Your task to perform on an android device: toggle translation in the chrome app Image 0: 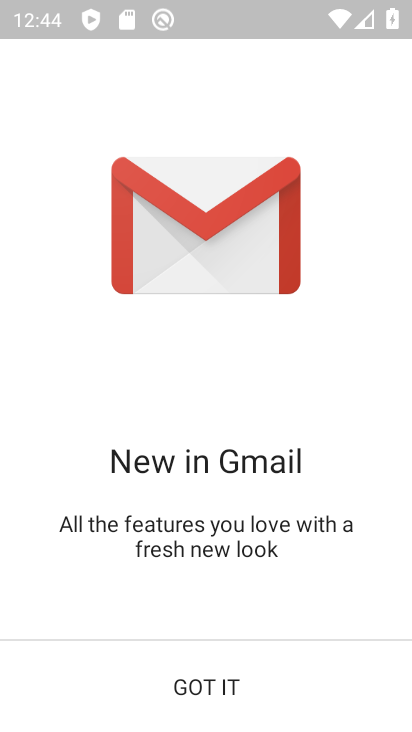
Step 0: click (204, 679)
Your task to perform on an android device: toggle translation in the chrome app Image 1: 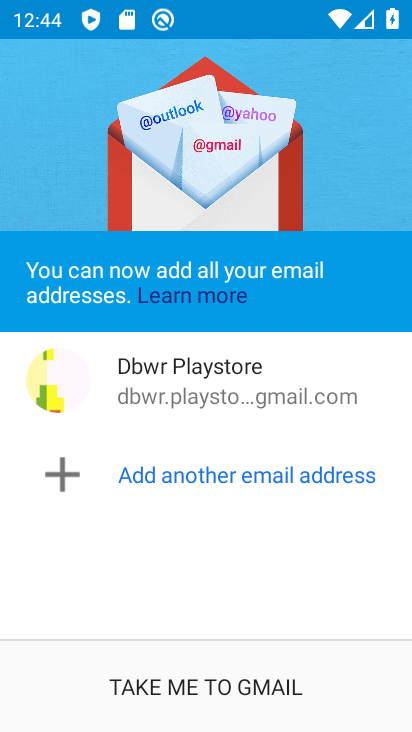
Step 1: click (205, 694)
Your task to perform on an android device: toggle translation in the chrome app Image 2: 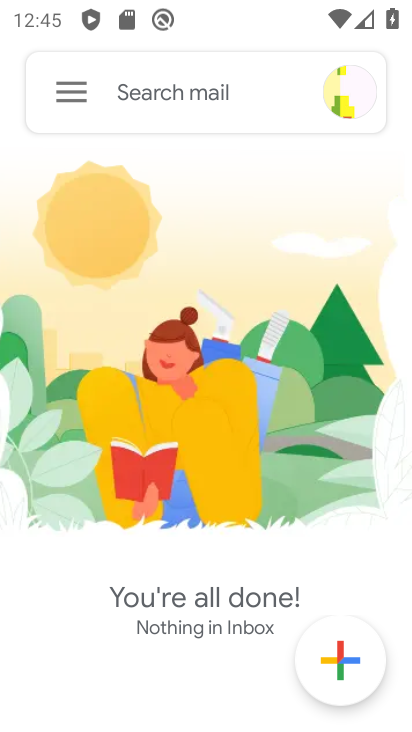
Step 2: click (74, 93)
Your task to perform on an android device: toggle translation in the chrome app Image 3: 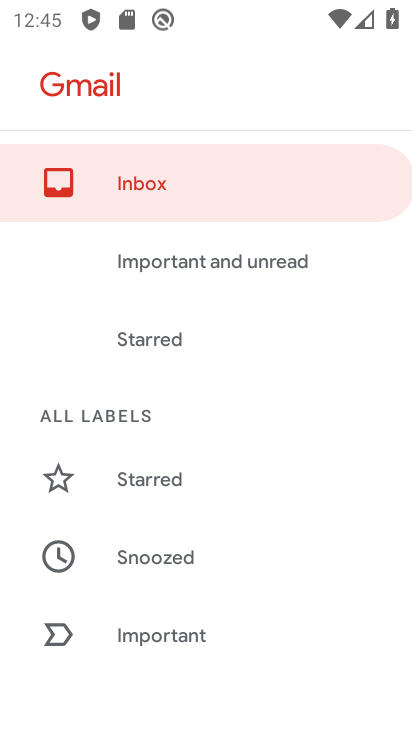
Step 3: drag from (263, 598) to (229, 336)
Your task to perform on an android device: toggle translation in the chrome app Image 4: 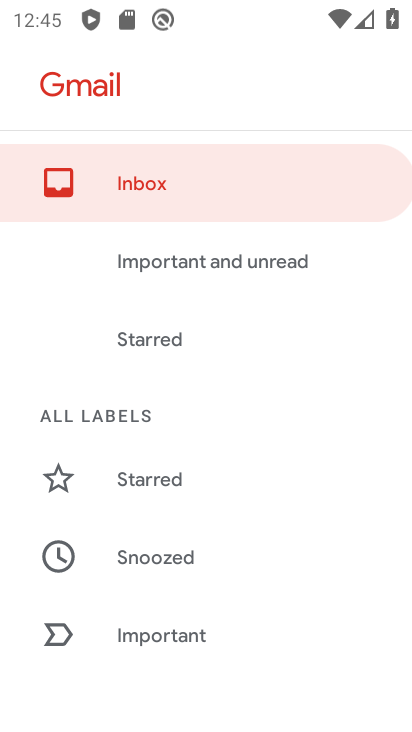
Step 4: drag from (235, 609) to (233, 271)
Your task to perform on an android device: toggle translation in the chrome app Image 5: 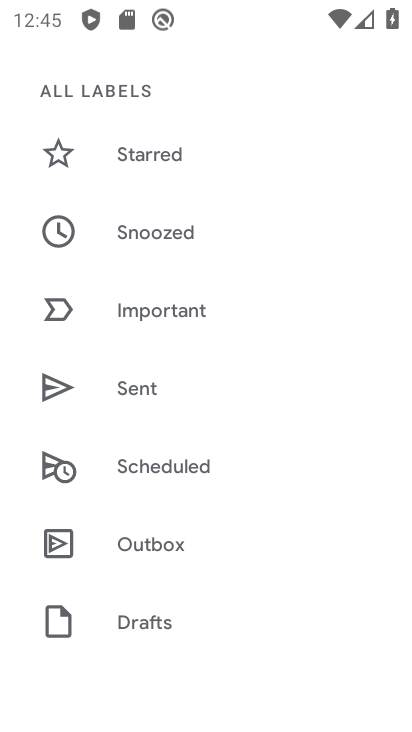
Step 5: drag from (211, 622) to (221, 231)
Your task to perform on an android device: toggle translation in the chrome app Image 6: 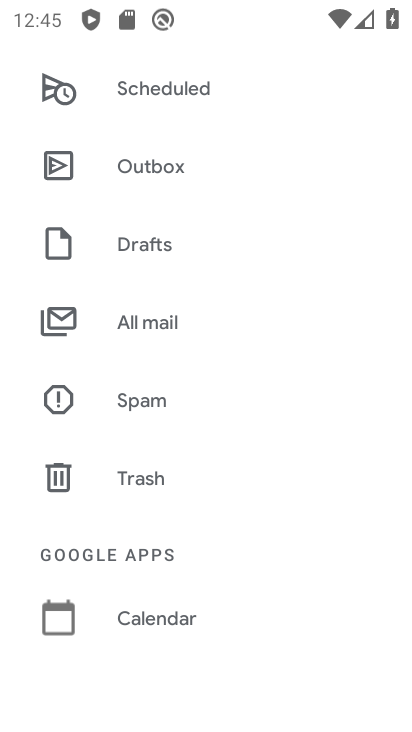
Step 6: drag from (216, 490) to (219, 270)
Your task to perform on an android device: toggle translation in the chrome app Image 7: 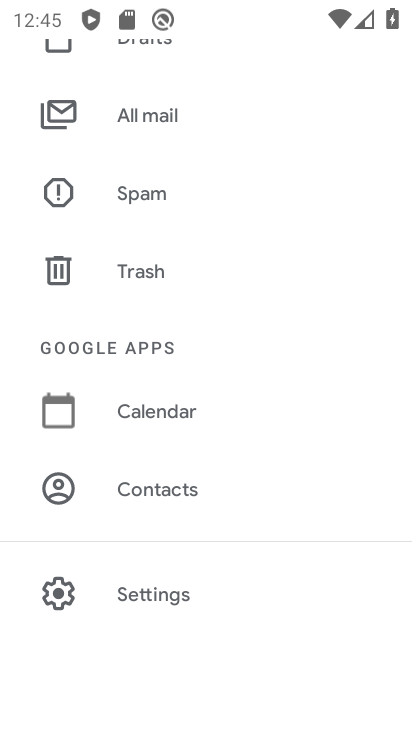
Step 7: click (185, 598)
Your task to perform on an android device: toggle translation in the chrome app Image 8: 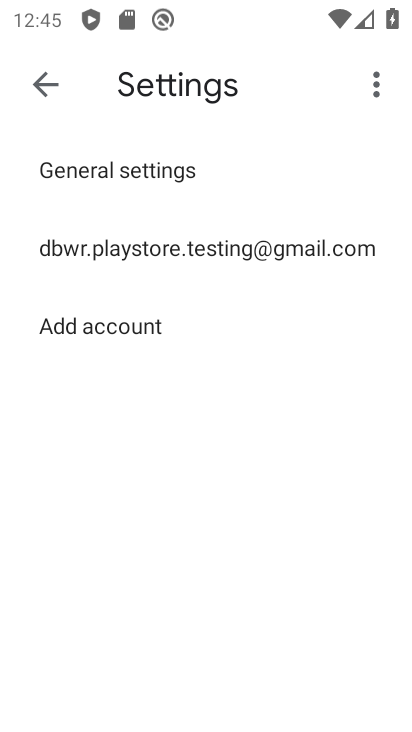
Step 8: click (41, 80)
Your task to perform on an android device: toggle translation in the chrome app Image 9: 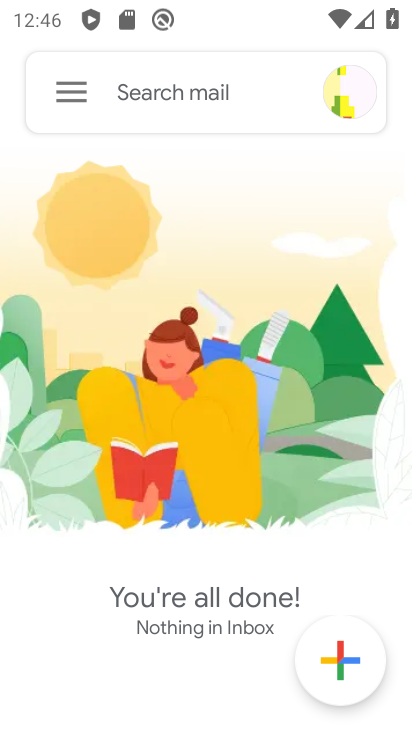
Step 9: task complete